Your task to perform on an android device: delete a single message in the gmail app Image 0: 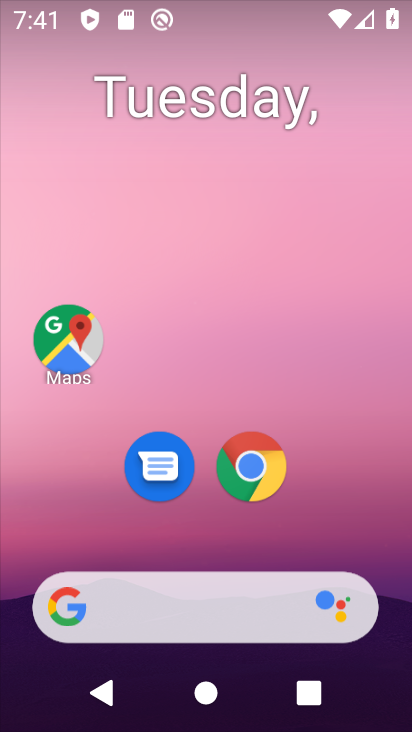
Step 0: press home button
Your task to perform on an android device: delete a single message in the gmail app Image 1: 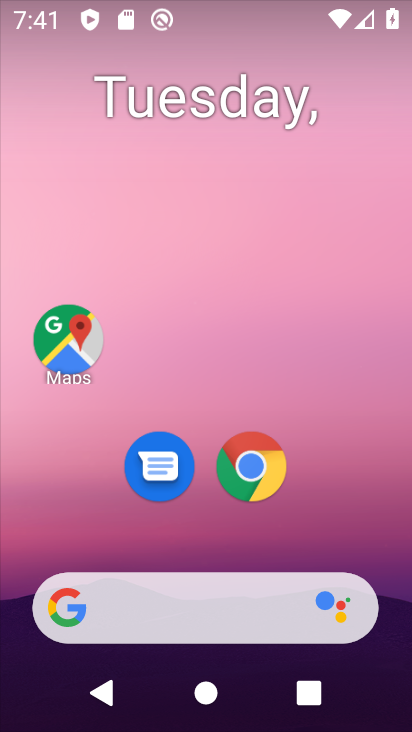
Step 1: drag from (209, 525) to (244, 39)
Your task to perform on an android device: delete a single message in the gmail app Image 2: 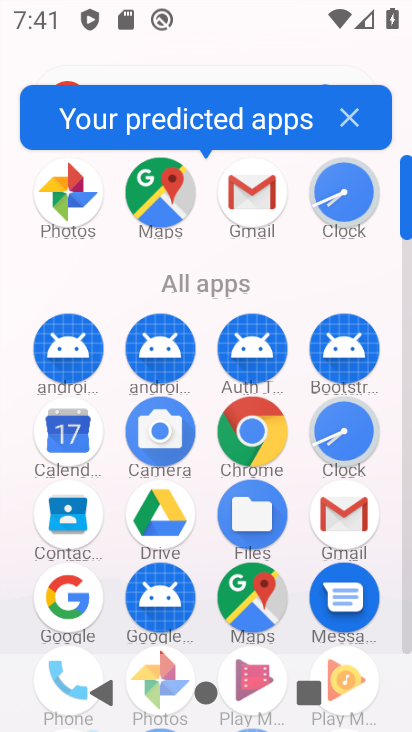
Step 2: click (247, 180)
Your task to perform on an android device: delete a single message in the gmail app Image 3: 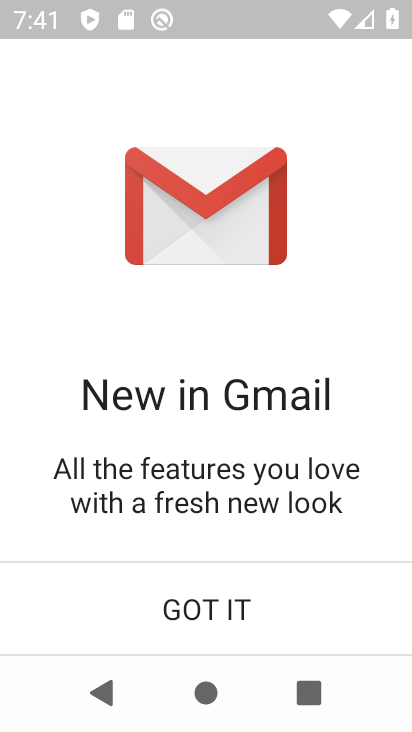
Step 3: click (215, 617)
Your task to perform on an android device: delete a single message in the gmail app Image 4: 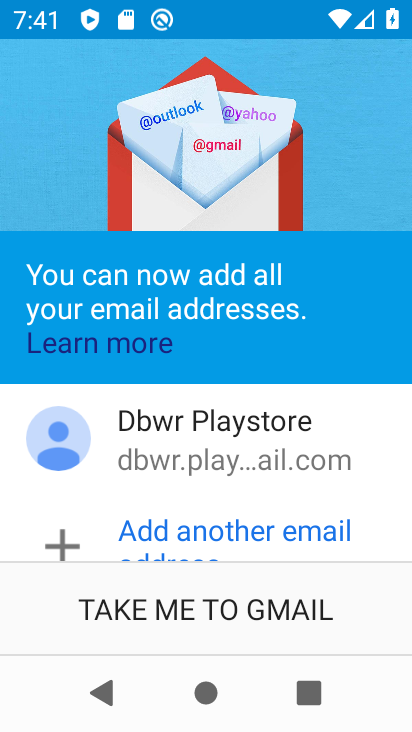
Step 4: click (200, 629)
Your task to perform on an android device: delete a single message in the gmail app Image 5: 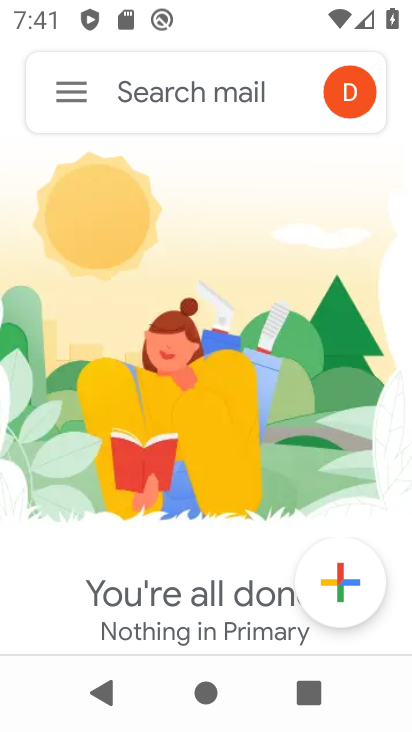
Step 5: task complete